Your task to perform on an android device: turn off airplane mode Image 0: 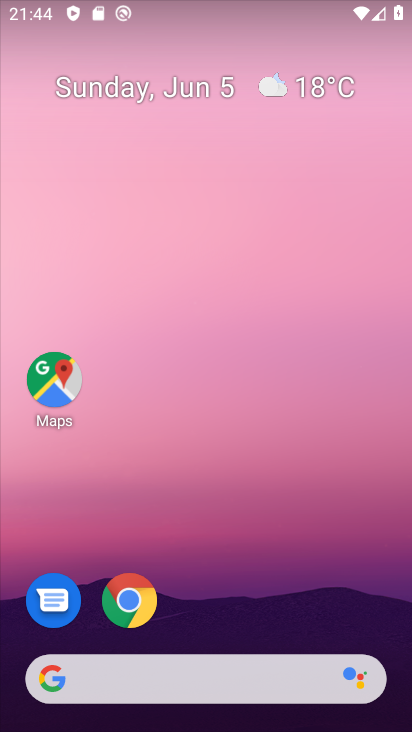
Step 0: drag from (293, 483) to (281, 123)
Your task to perform on an android device: turn off airplane mode Image 1: 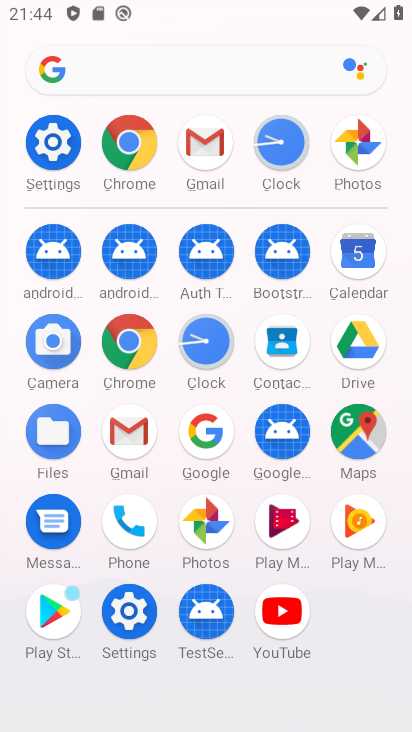
Step 1: click (52, 144)
Your task to perform on an android device: turn off airplane mode Image 2: 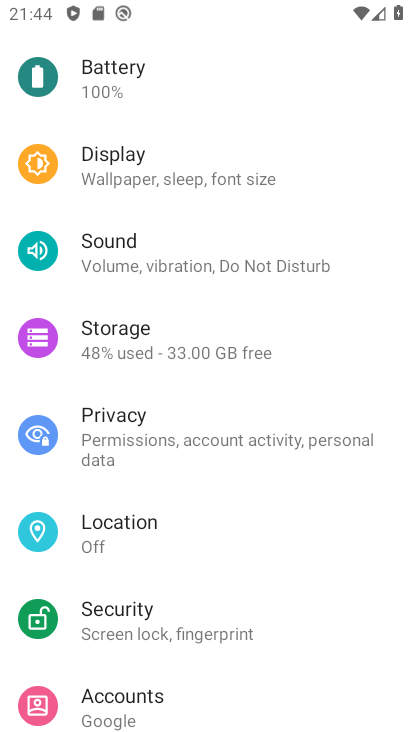
Step 2: drag from (196, 138) to (254, 631)
Your task to perform on an android device: turn off airplane mode Image 3: 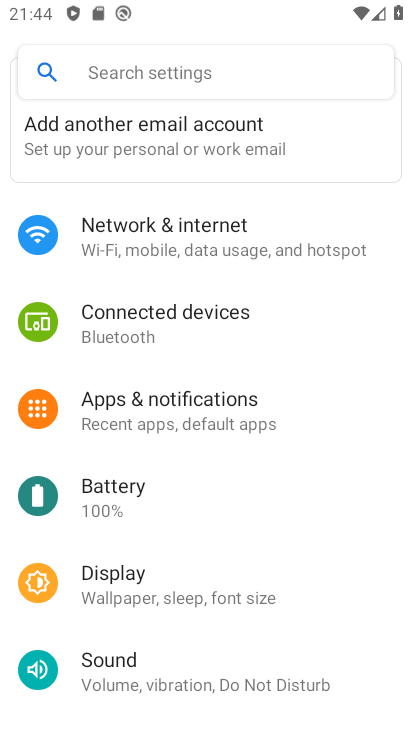
Step 3: click (139, 245)
Your task to perform on an android device: turn off airplane mode Image 4: 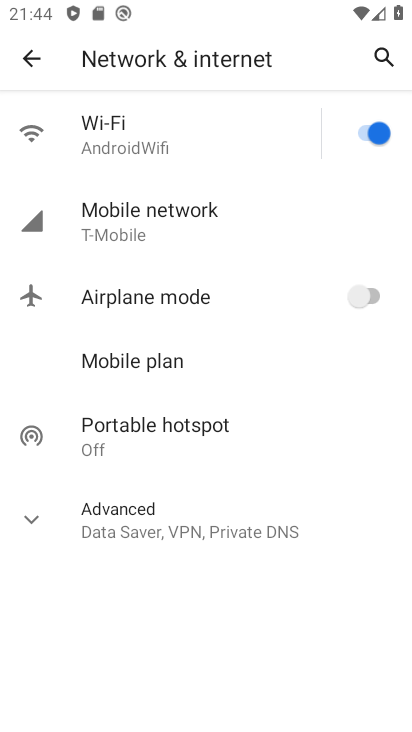
Step 4: task complete